Your task to perform on an android device: turn smart compose on in the gmail app Image 0: 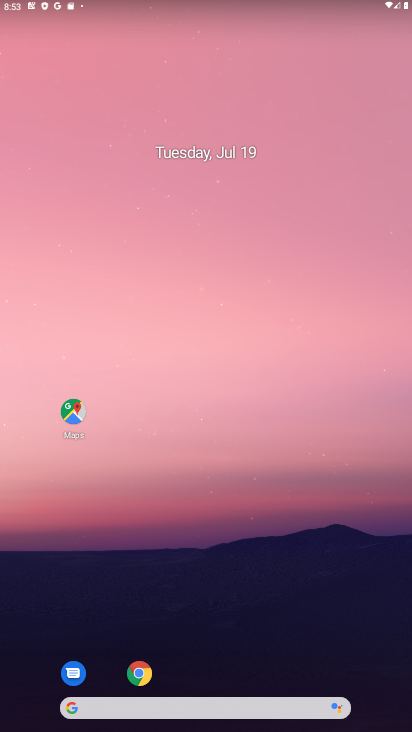
Step 0: drag from (214, 692) to (158, 182)
Your task to perform on an android device: turn smart compose on in the gmail app Image 1: 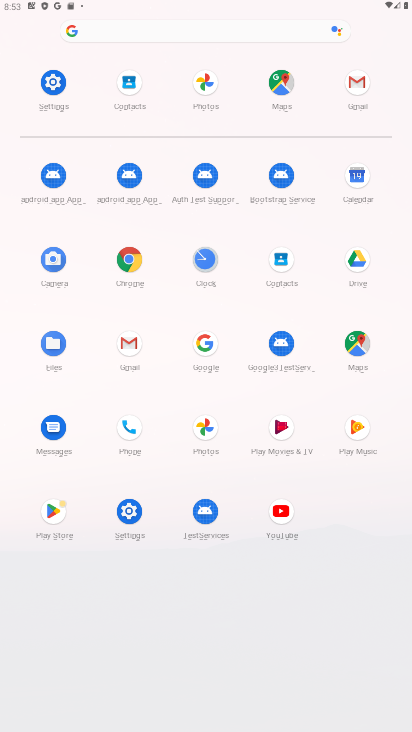
Step 1: click (354, 105)
Your task to perform on an android device: turn smart compose on in the gmail app Image 2: 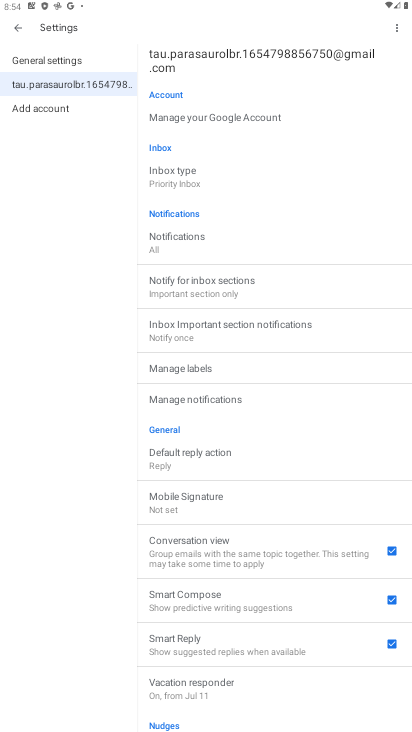
Step 2: click (279, 592)
Your task to perform on an android device: turn smart compose on in the gmail app Image 3: 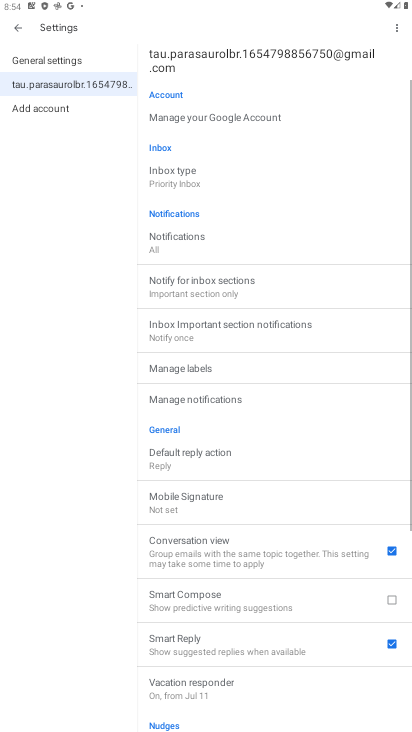
Step 3: task complete